Your task to perform on an android device: Search for the best selling video games at Target Image 0: 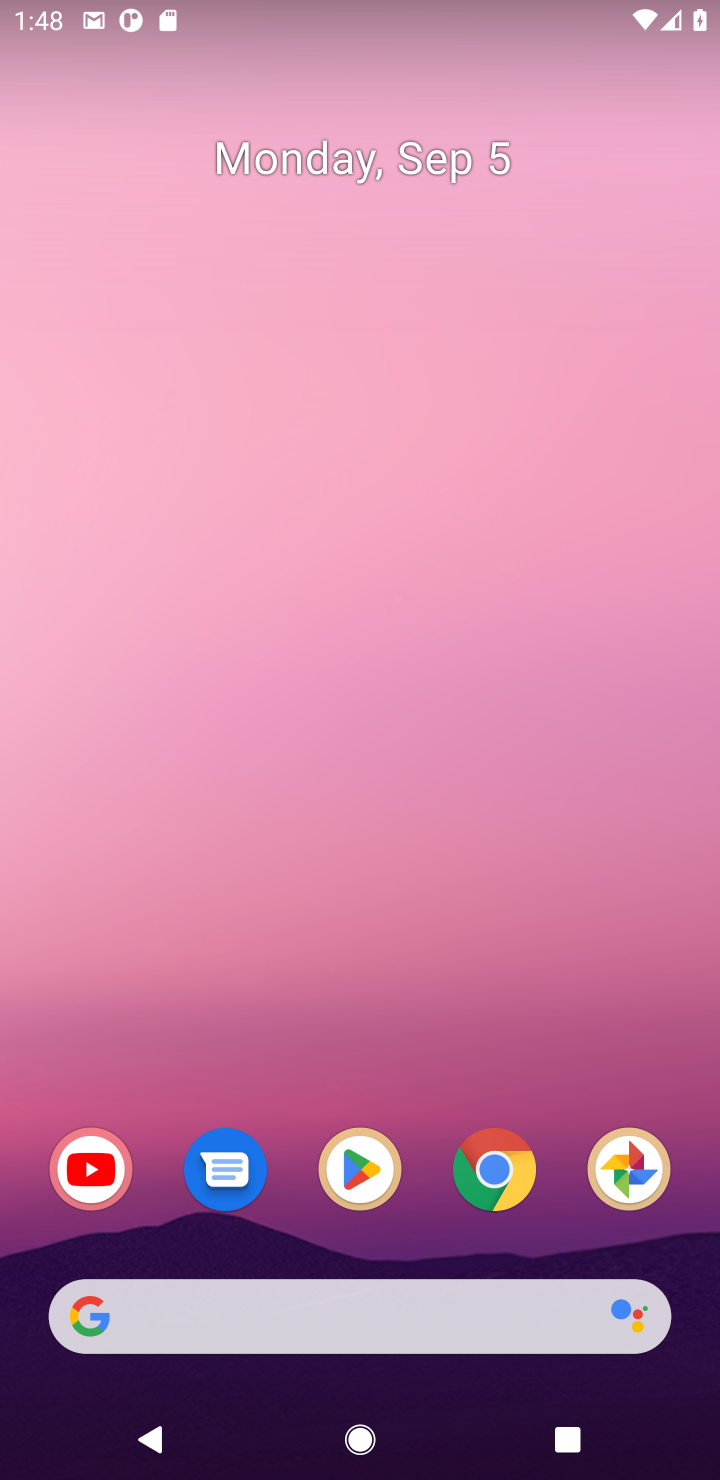
Step 0: click (115, 1144)
Your task to perform on an android device: Search for the best selling video games at Target Image 1: 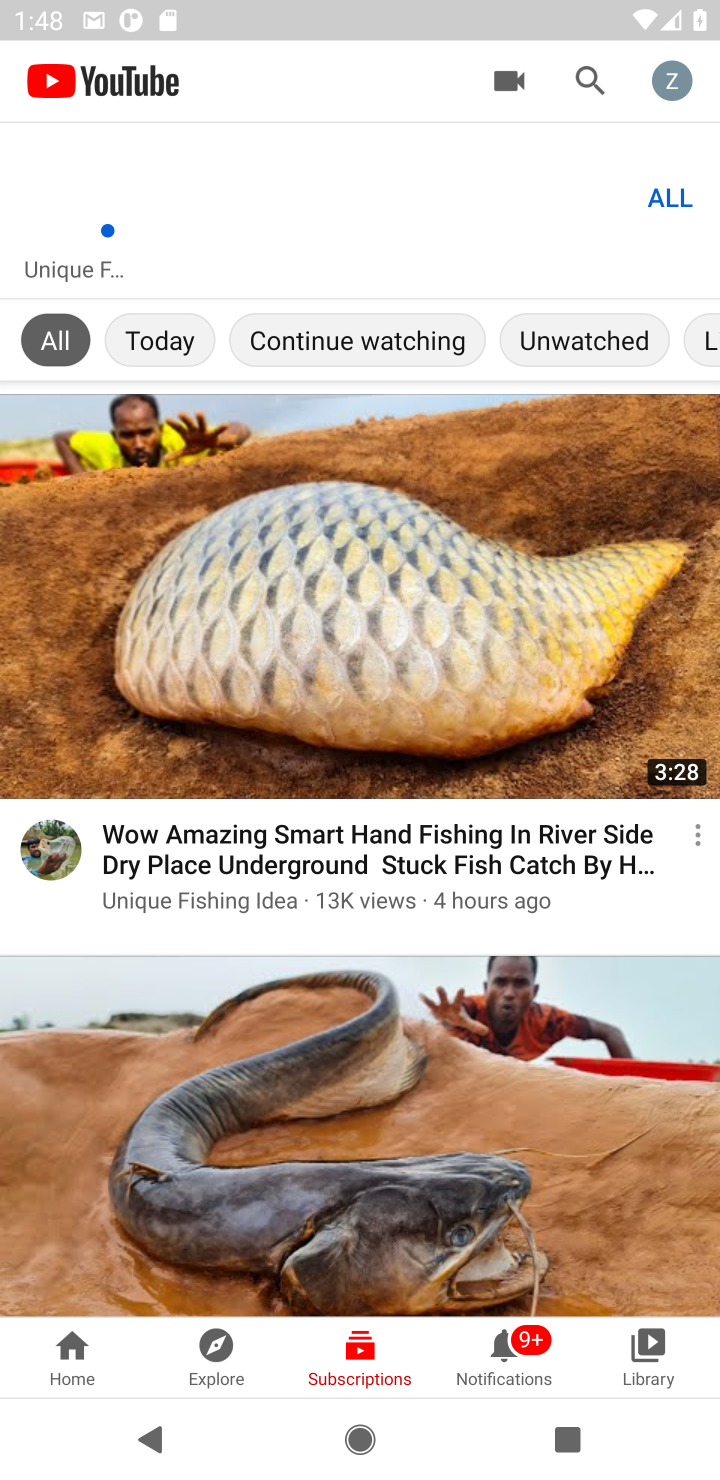
Step 1: click (341, 1071)
Your task to perform on an android device: Search for the best selling video games at Target Image 2: 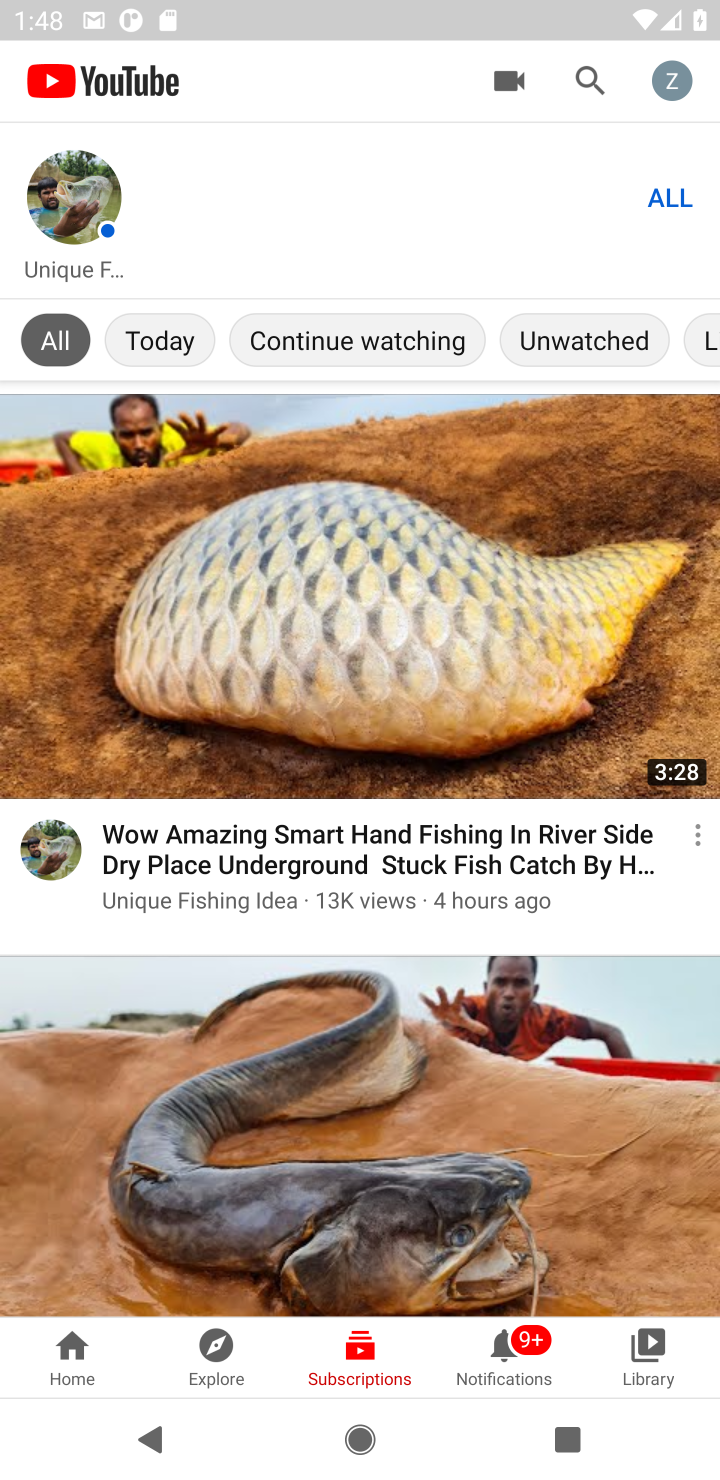
Step 2: task complete